Your task to perform on an android device: Open Youtube and go to "Your channel" Image 0: 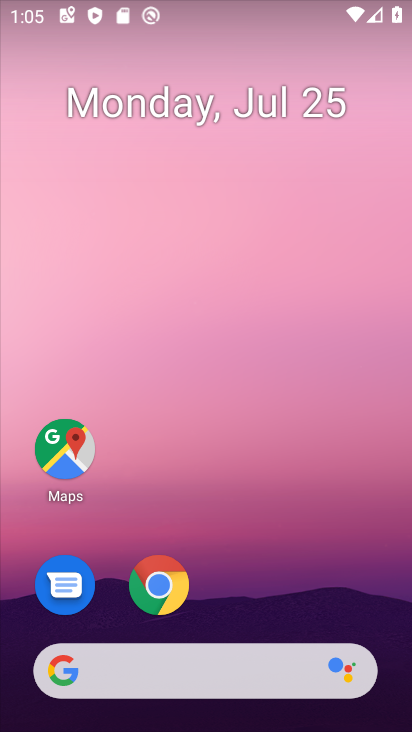
Step 0: drag from (261, 590) to (313, 20)
Your task to perform on an android device: Open Youtube and go to "Your channel" Image 1: 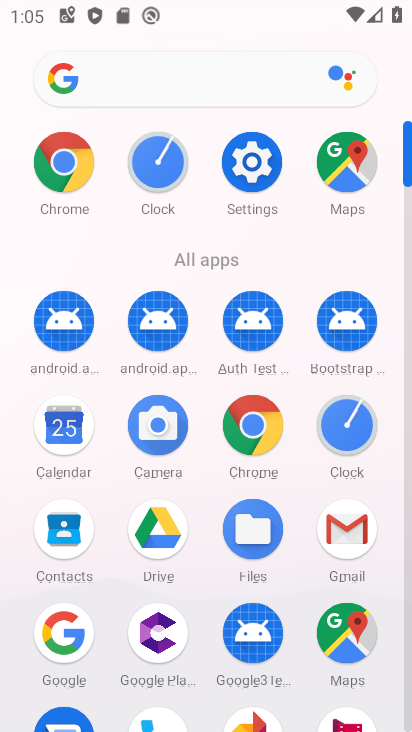
Step 1: drag from (191, 550) to (239, 19)
Your task to perform on an android device: Open Youtube and go to "Your channel" Image 2: 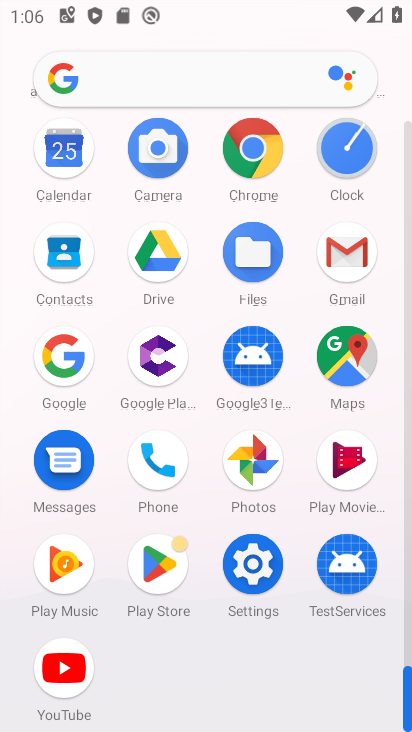
Step 2: click (68, 671)
Your task to perform on an android device: Open Youtube and go to "Your channel" Image 3: 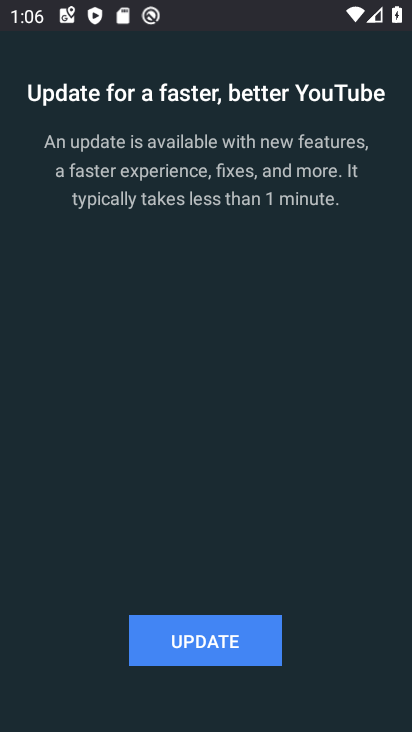
Step 3: click (222, 643)
Your task to perform on an android device: Open Youtube and go to "Your channel" Image 4: 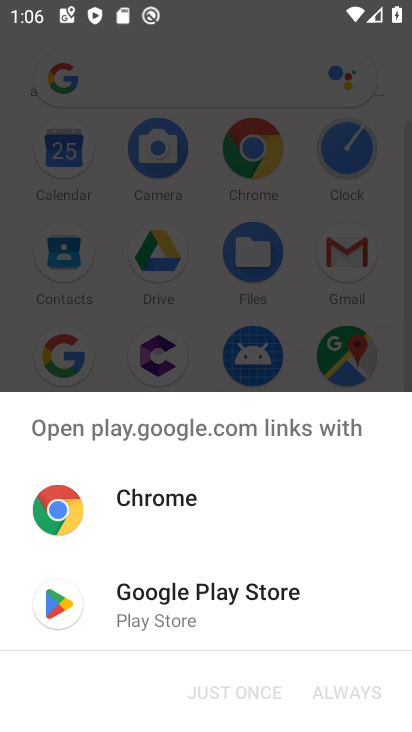
Step 4: click (155, 605)
Your task to perform on an android device: Open Youtube and go to "Your channel" Image 5: 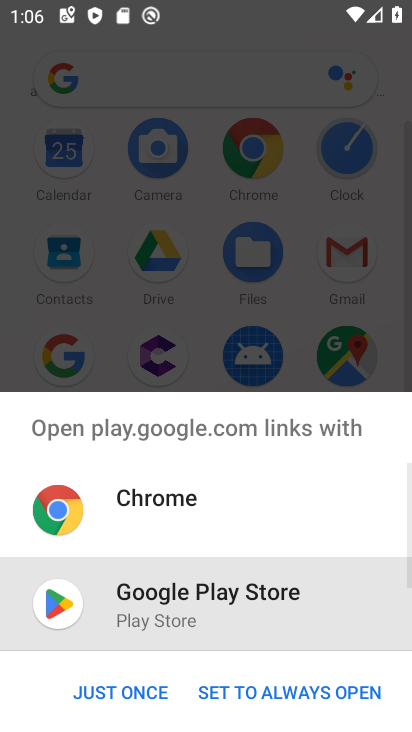
Step 5: click (127, 693)
Your task to perform on an android device: Open Youtube and go to "Your channel" Image 6: 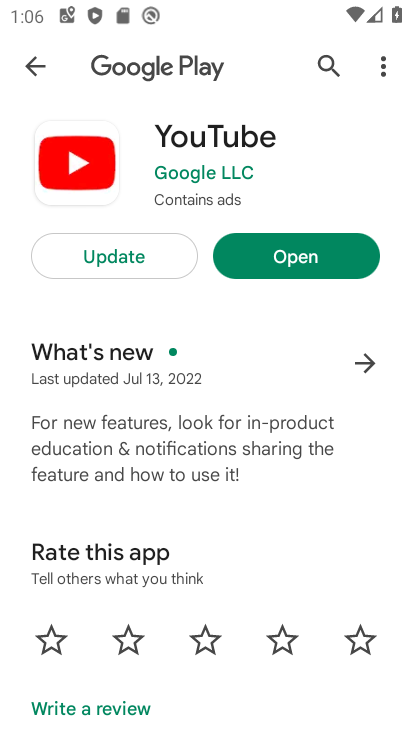
Step 6: click (153, 254)
Your task to perform on an android device: Open Youtube and go to "Your channel" Image 7: 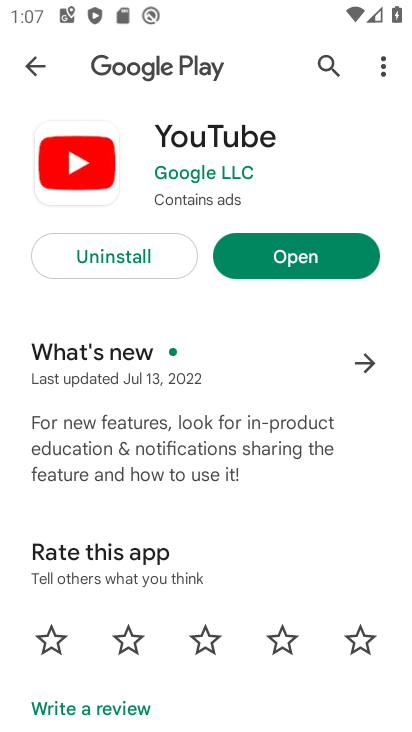
Step 7: click (351, 261)
Your task to perform on an android device: Open Youtube and go to "Your channel" Image 8: 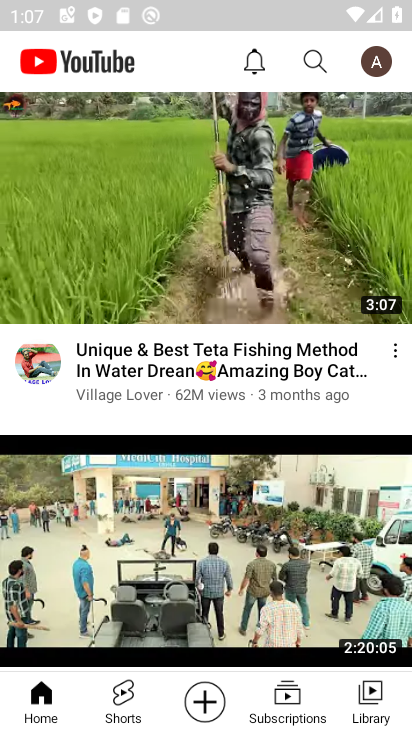
Step 8: click (371, 62)
Your task to perform on an android device: Open Youtube and go to "Your channel" Image 9: 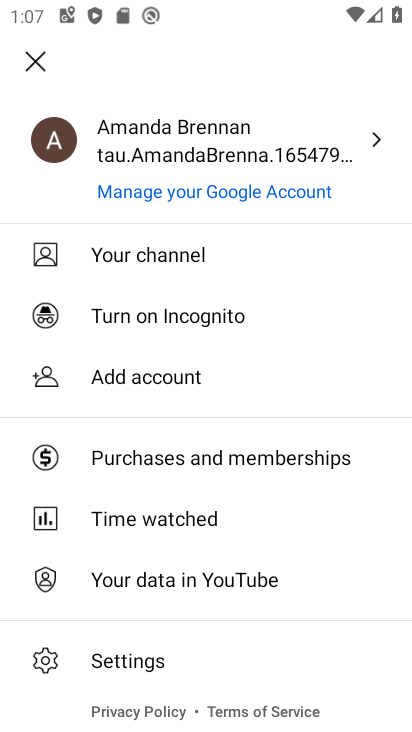
Step 9: click (200, 245)
Your task to perform on an android device: Open Youtube and go to "Your channel" Image 10: 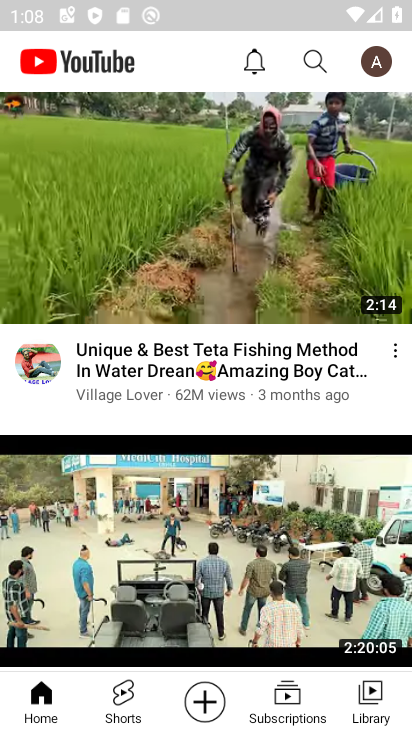
Step 10: task complete